Your task to perform on an android device: turn smart compose on in the gmail app Image 0: 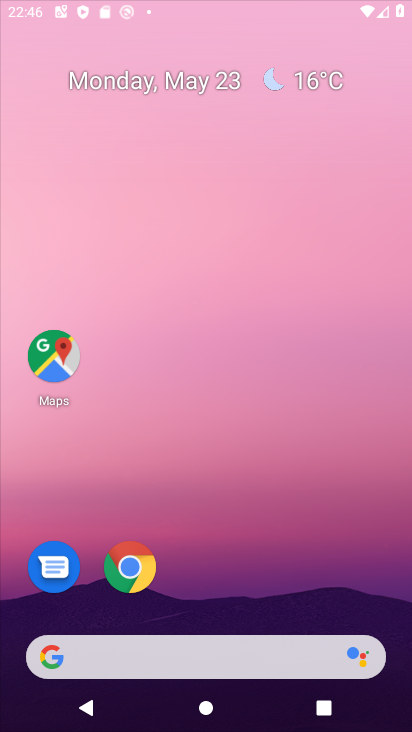
Step 0: click (270, 106)
Your task to perform on an android device: turn smart compose on in the gmail app Image 1: 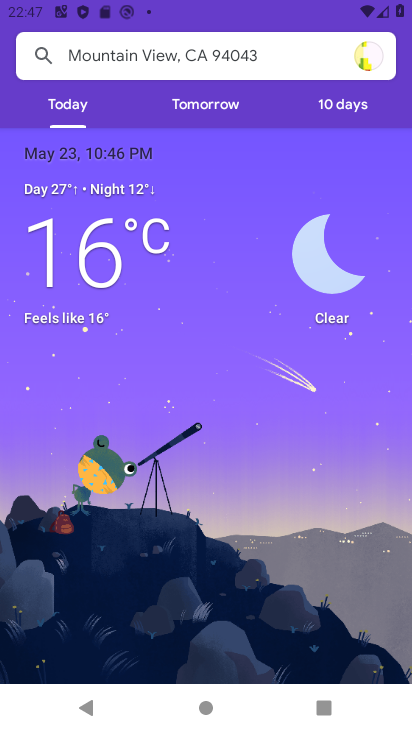
Step 1: drag from (258, 584) to (315, 102)
Your task to perform on an android device: turn smart compose on in the gmail app Image 2: 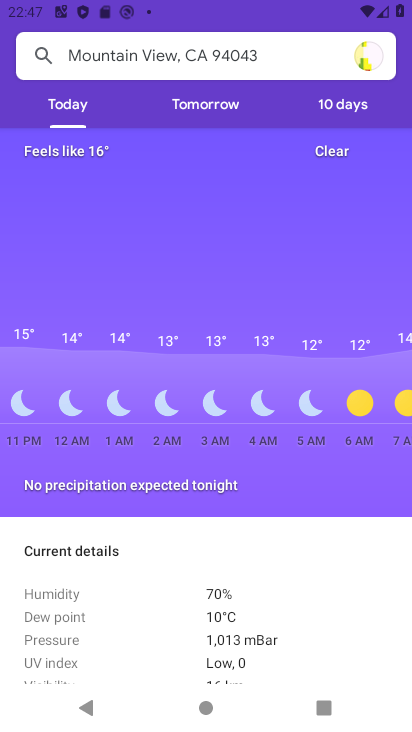
Step 2: drag from (248, 635) to (332, 208)
Your task to perform on an android device: turn smart compose on in the gmail app Image 3: 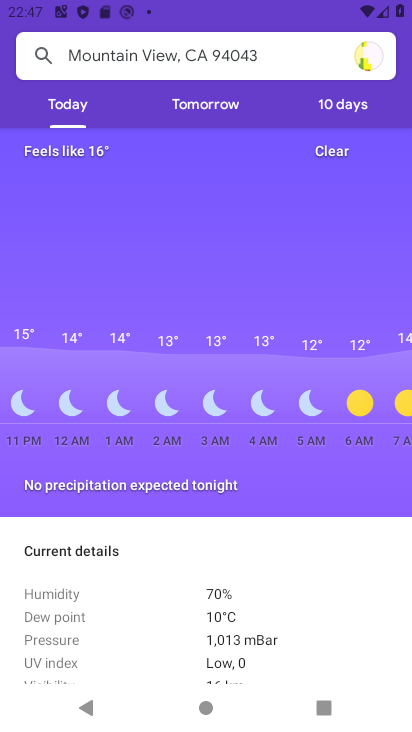
Step 3: drag from (180, 566) to (307, 200)
Your task to perform on an android device: turn smart compose on in the gmail app Image 4: 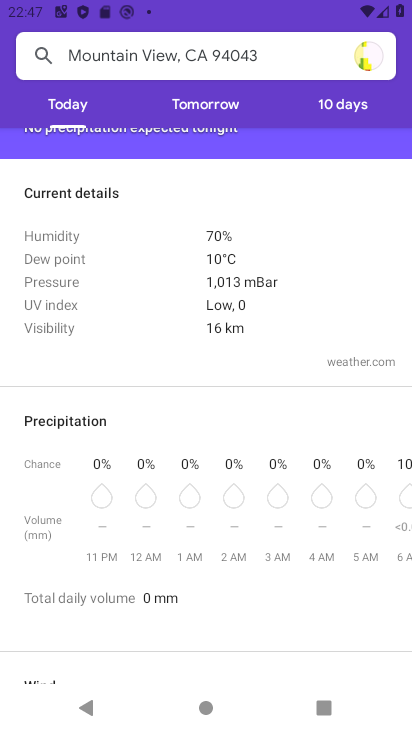
Step 4: press home button
Your task to perform on an android device: turn smart compose on in the gmail app Image 5: 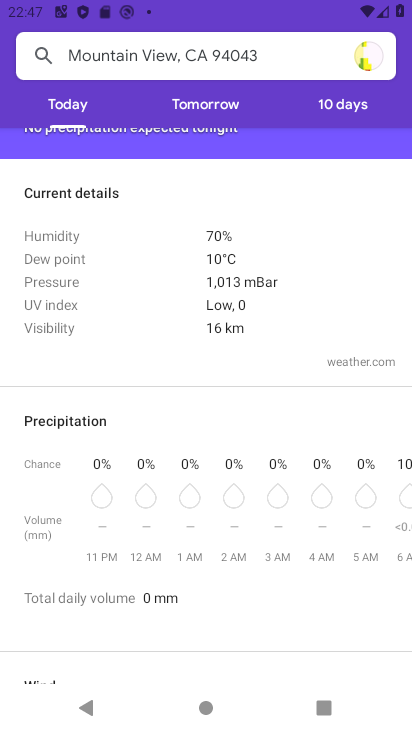
Step 5: press home button
Your task to perform on an android device: turn smart compose on in the gmail app Image 6: 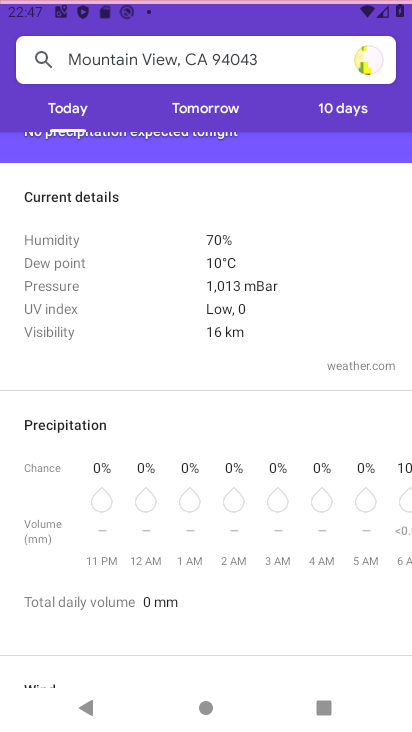
Step 6: drag from (295, 470) to (323, 153)
Your task to perform on an android device: turn smart compose on in the gmail app Image 7: 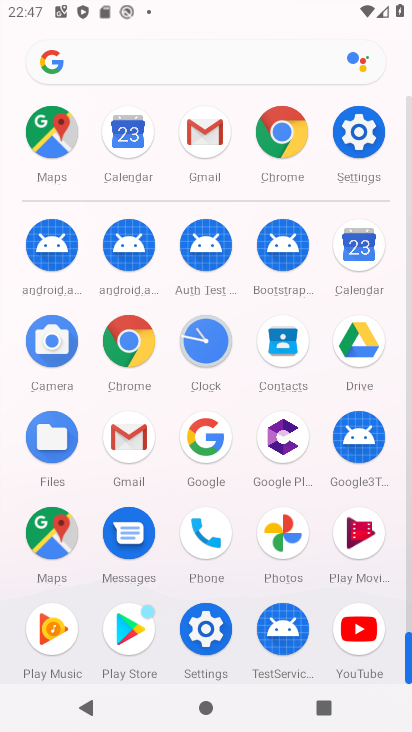
Step 7: click (128, 435)
Your task to perform on an android device: turn smart compose on in the gmail app Image 8: 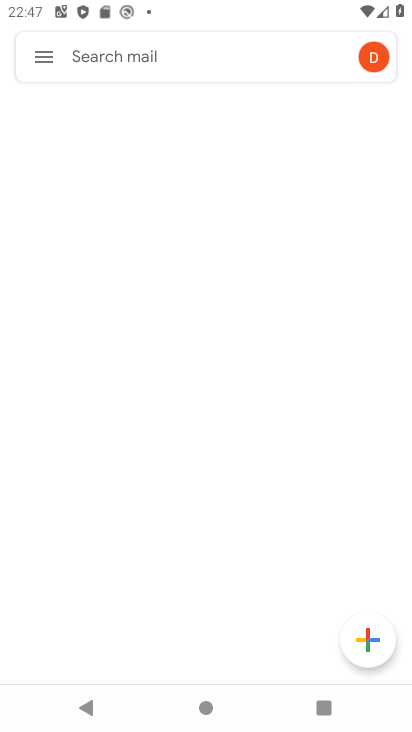
Step 8: click (51, 55)
Your task to perform on an android device: turn smart compose on in the gmail app Image 9: 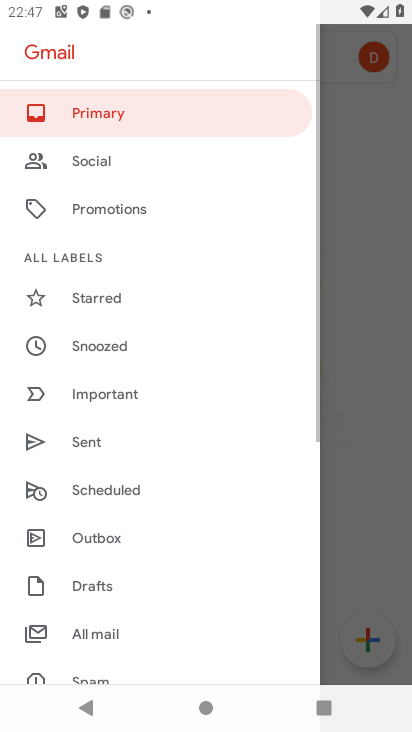
Step 9: drag from (144, 668) to (228, 13)
Your task to perform on an android device: turn smart compose on in the gmail app Image 10: 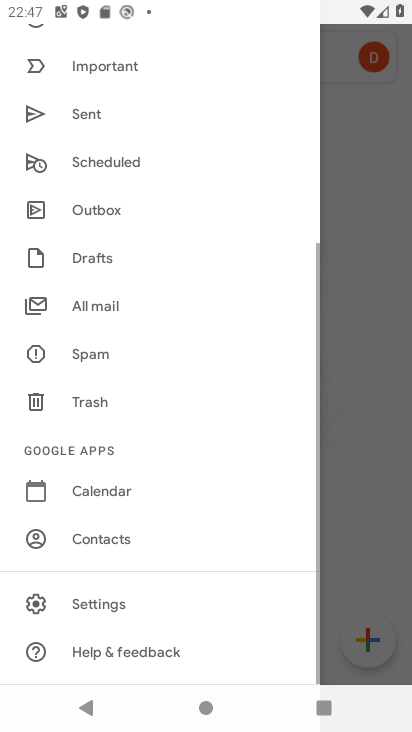
Step 10: click (150, 592)
Your task to perform on an android device: turn smart compose on in the gmail app Image 11: 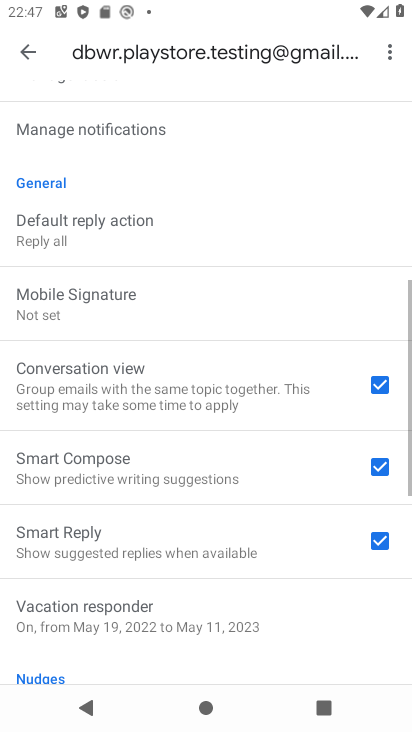
Step 11: task complete